Your task to perform on an android device: Open internet settings Image 0: 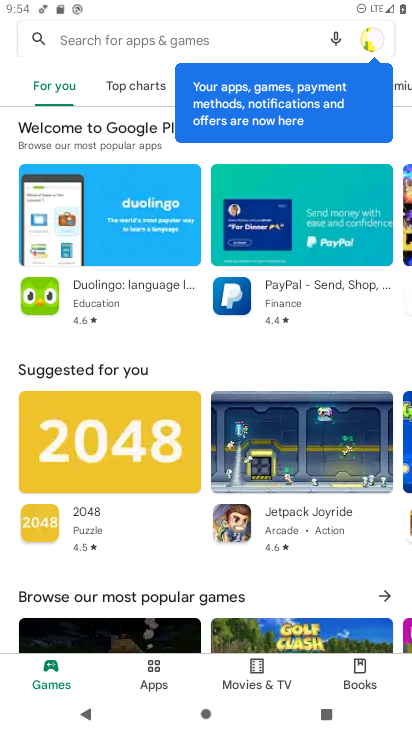
Step 0: press home button
Your task to perform on an android device: Open internet settings Image 1: 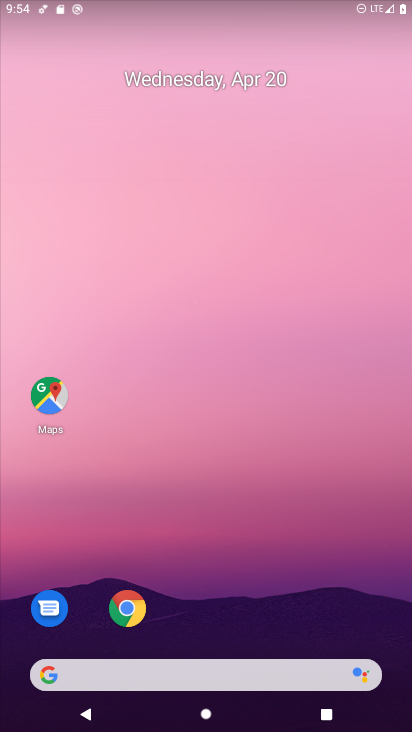
Step 1: drag from (197, 545) to (10, 45)
Your task to perform on an android device: Open internet settings Image 2: 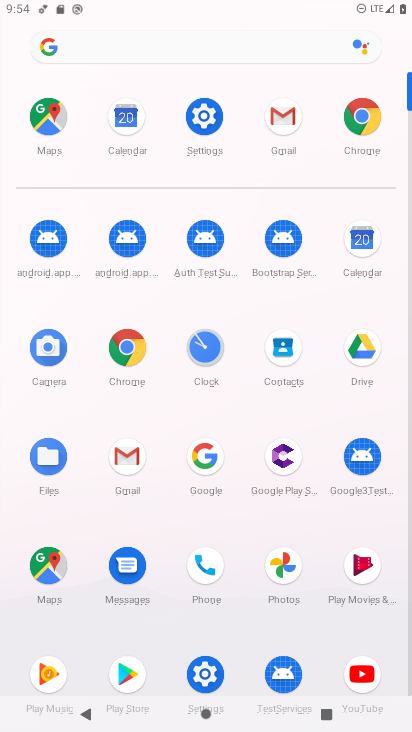
Step 2: click (204, 117)
Your task to perform on an android device: Open internet settings Image 3: 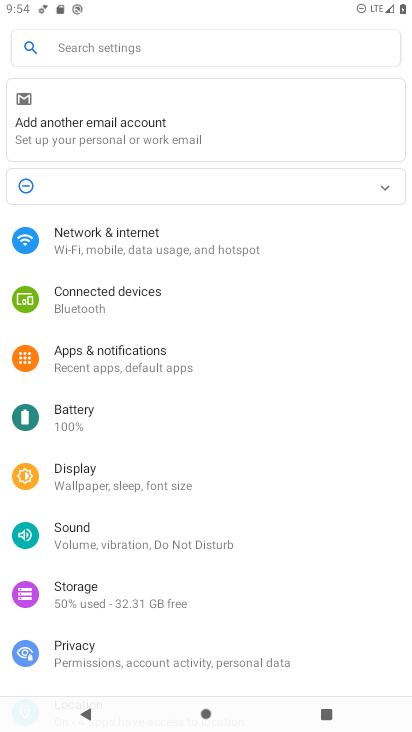
Step 3: click (94, 236)
Your task to perform on an android device: Open internet settings Image 4: 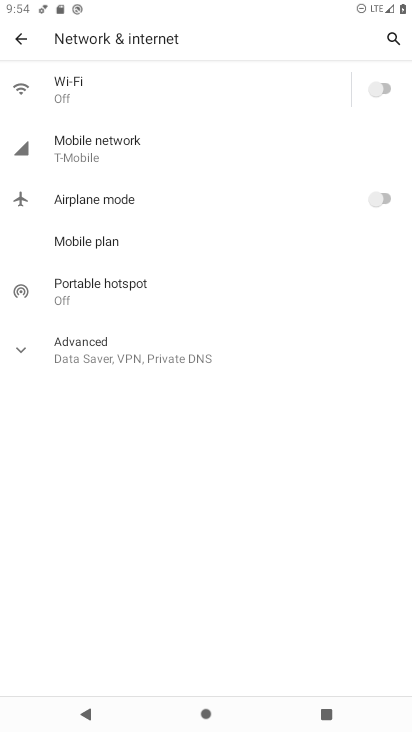
Step 4: task complete